Your task to perform on an android device: Is it going to rain tomorrow? Image 0: 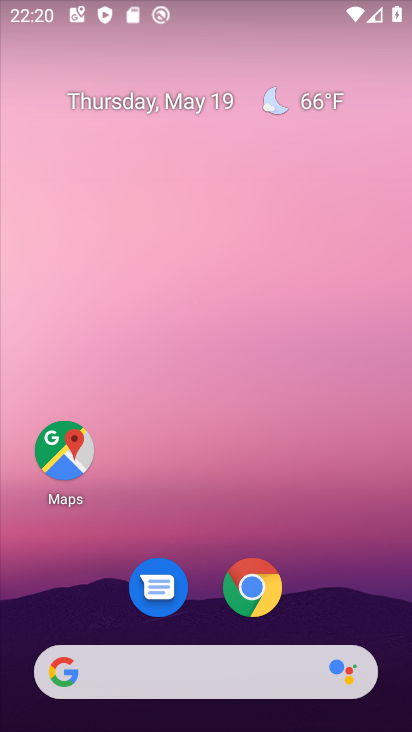
Step 0: drag from (263, 705) to (197, 137)
Your task to perform on an android device: Is it going to rain tomorrow? Image 1: 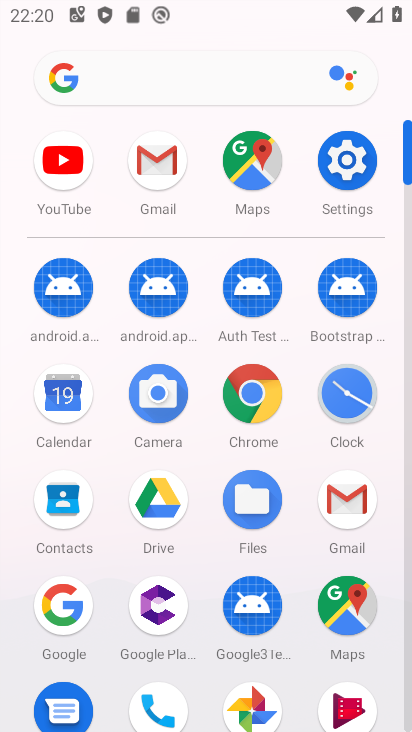
Step 1: click (104, 75)
Your task to perform on an android device: Is it going to rain tomorrow? Image 2: 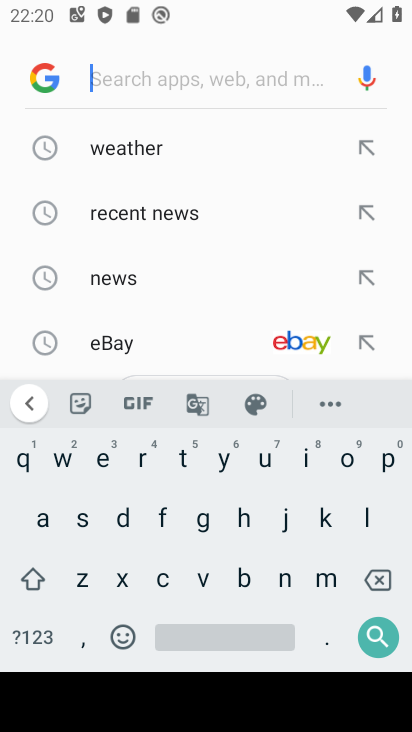
Step 2: click (166, 151)
Your task to perform on an android device: Is it going to rain tomorrow? Image 3: 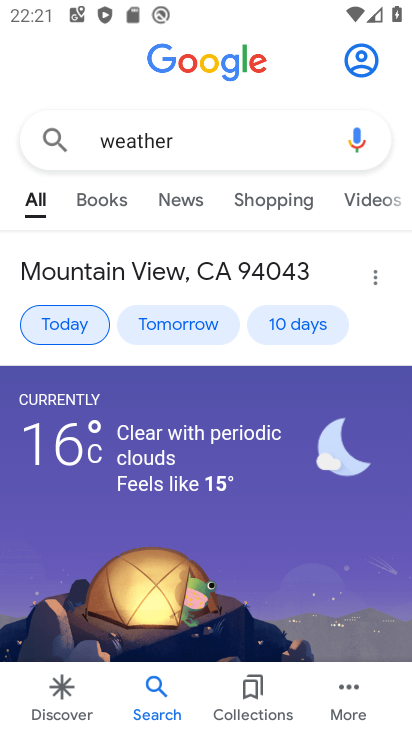
Step 3: click (196, 310)
Your task to perform on an android device: Is it going to rain tomorrow? Image 4: 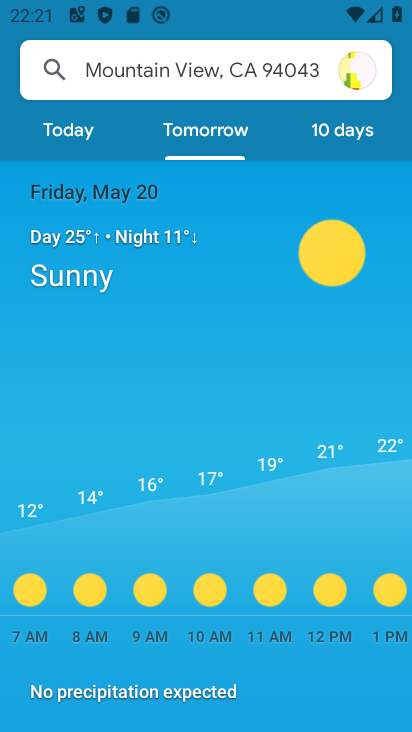
Step 4: task complete